Your task to perform on an android device: Turn on the flashlight Image 0: 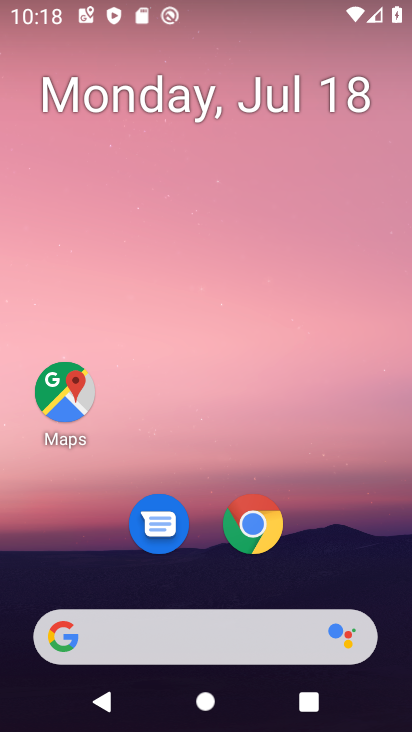
Step 0: drag from (228, 316) to (243, 2)
Your task to perform on an android device: Turn on the flashlight Image 1: 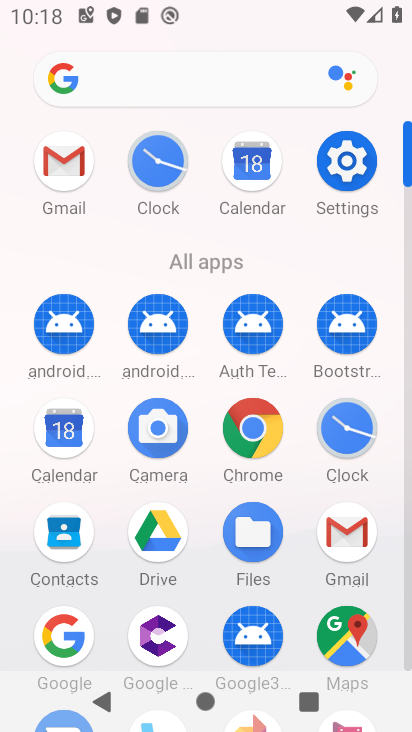
Step 1: click (347, 157)
Your task to perform on an android device: Turn on the flashlight Image 2: 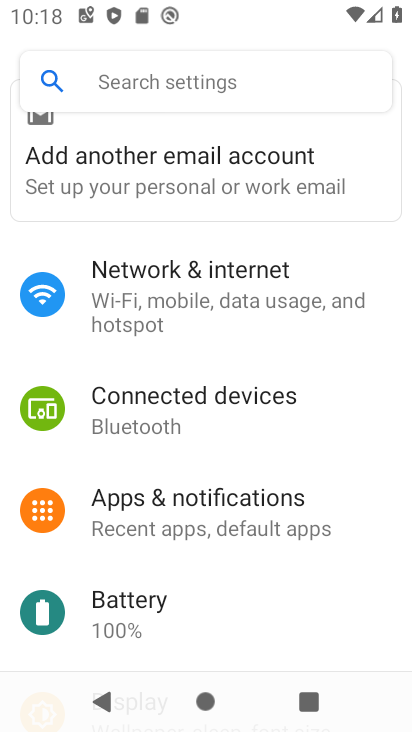
Step 2: click (281, 67)
Your task to perform on an android device: Turn on the flashlight Image 3: 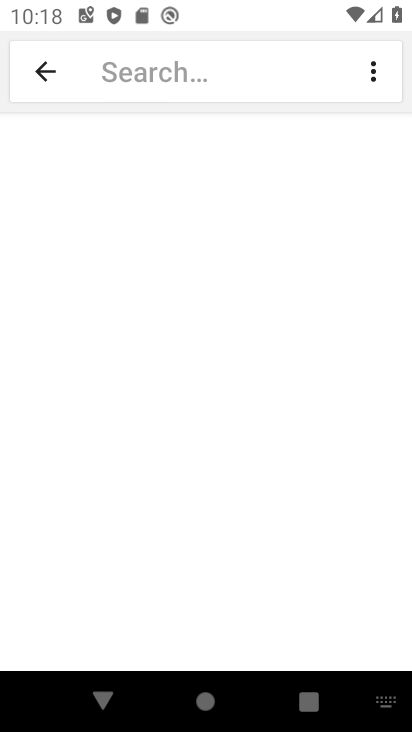
Step 3: type "Flashlight"
Your task to perform on an android device: Turn on the flashlight Image 4: 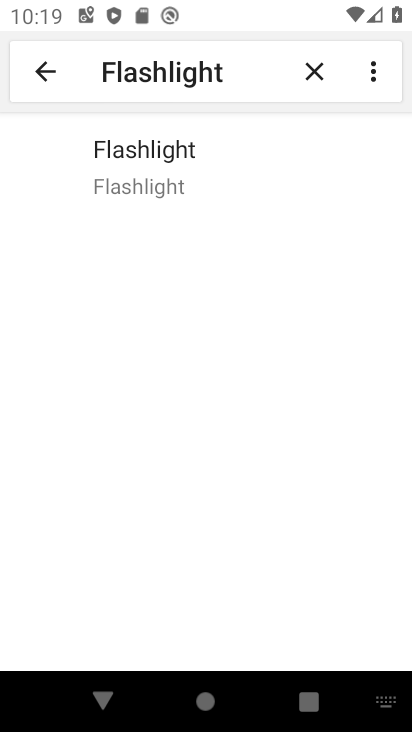
Step 4: click (143, 167)
Your task to perform on an android device: Turn on the flashlight Image 5: 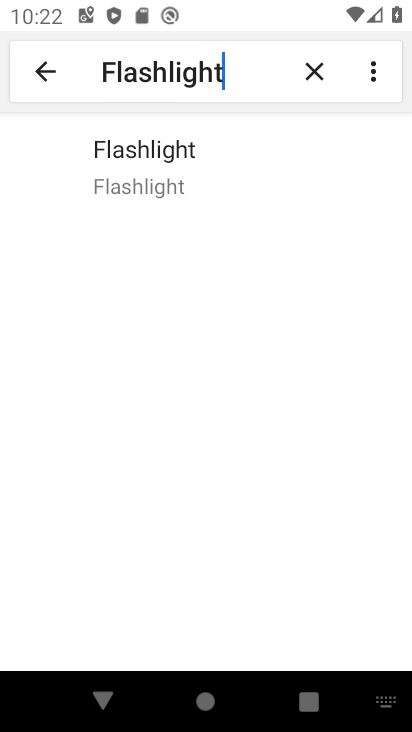
Step 5: task complete